Your task to perform on an android device: open device folders in google photos Image 0: 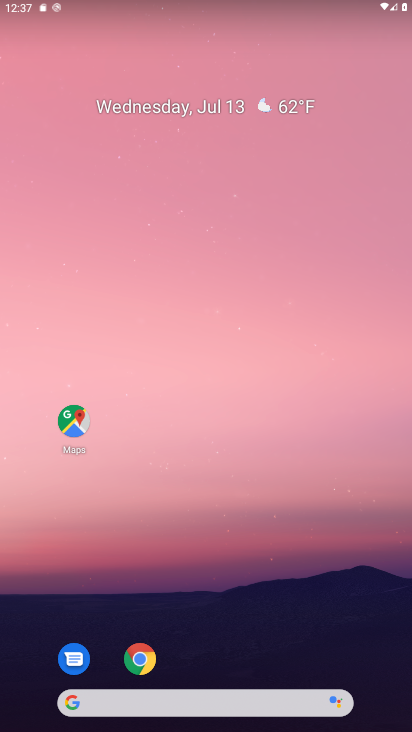
Step 0: drag from (277, 688) to (116, 99)
Your task to perform on an android device: open device folders in google photos Image 1: 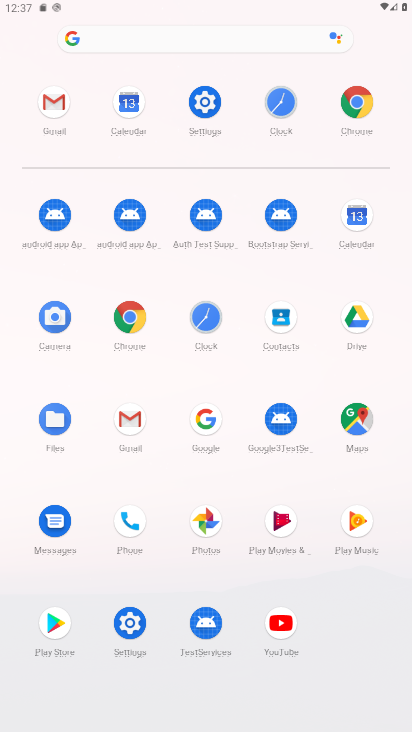
Step 1: click (207, 532)
Your task to perform on an android device: open device folders in google photos Image 2: 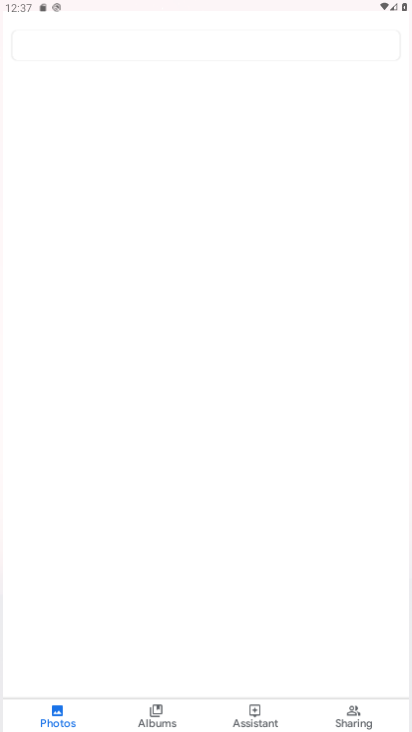
Step 2: click (209, 530)
Your task to perform on an android device: open device folders in google photos Image 3: 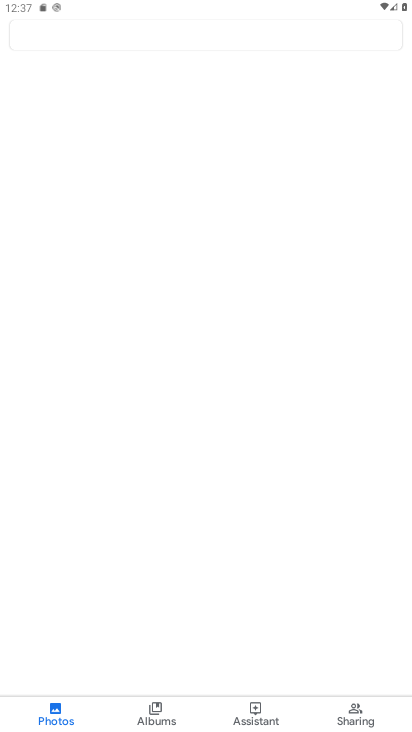
Step 3: click (213, 530)
Your task to perform on an android device: open device folders in google photos Image 4: 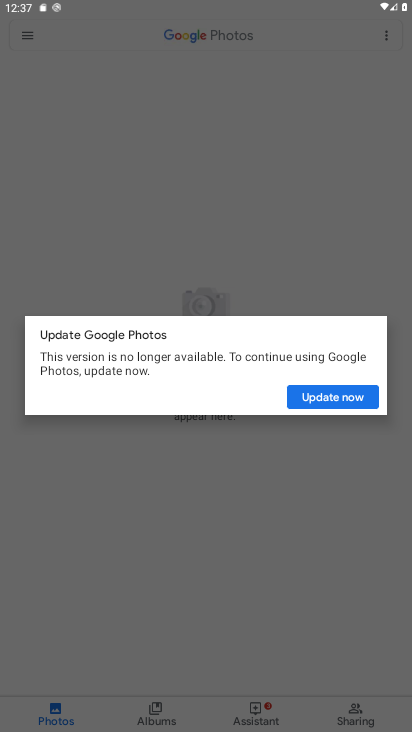
Step 4: click (169, 213)
Your task to perform on an android device: open device folders in google photos Image 5: 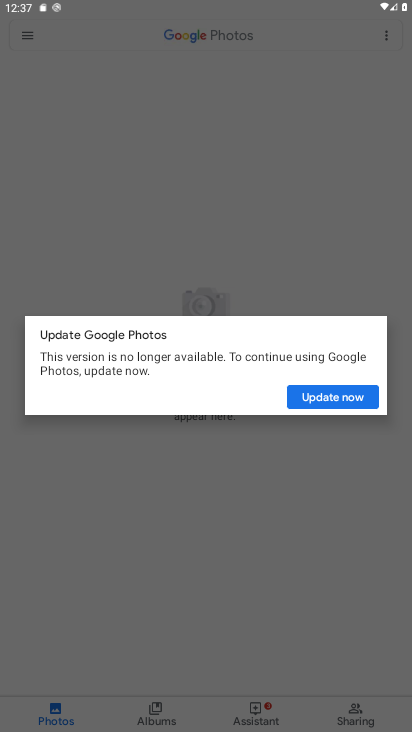
Step 5: click (174, 207)
Your task to perform on an android device: open device folders in google photos Image 6: 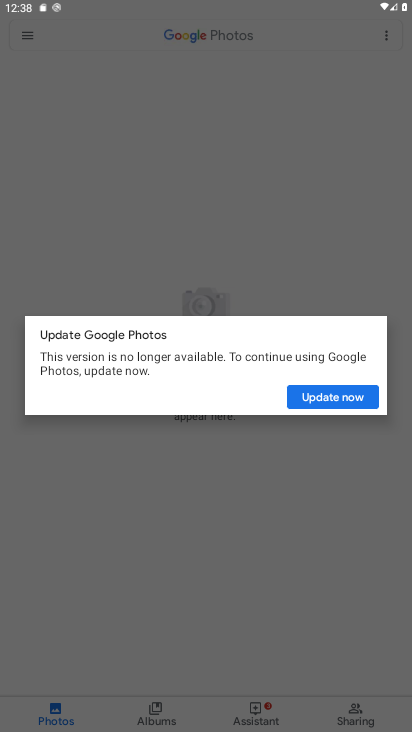
Step 6: click (182, 204)
Your task to perform on an android device: open device folders in google photos Image 7: 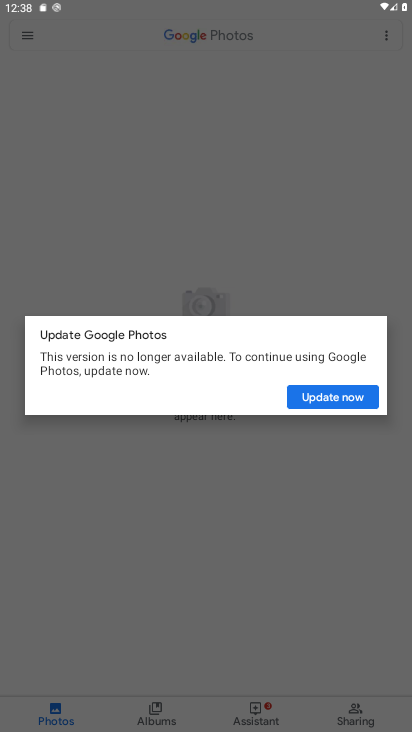
Step 7: click (236, 183)
Your task to perform on an android device: open device folders in google photos Image 8: 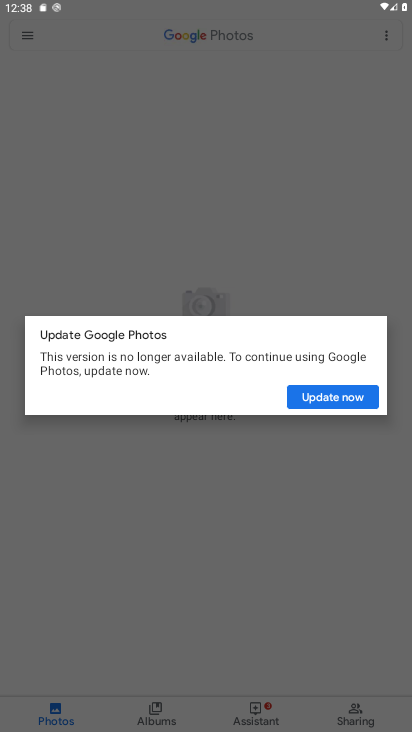
Step 8: click (244, 176)
Your task to perform on an android device: open device folders in google photos Image 9: 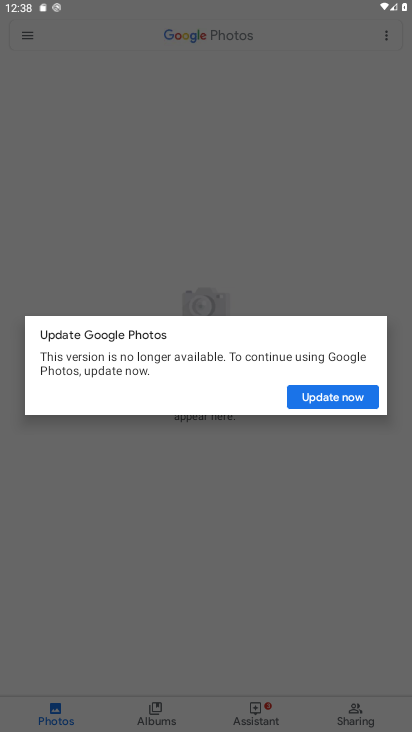
Step 9: click (290, 173)
Your task to perform on an android device: open device folders in google photos Image 10: 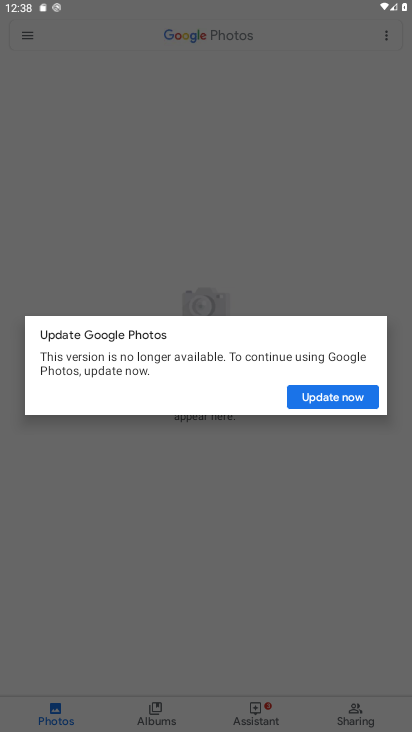
Step 10: click (291, 173)
Your task to perform on an android device: open device folders in google photos Image 11: 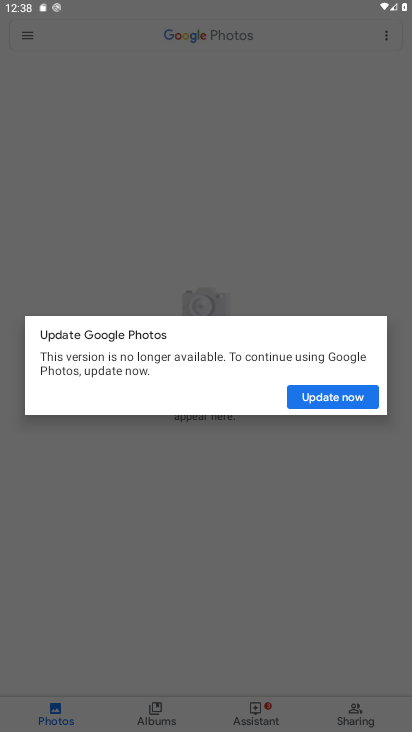
Step 11: click (291, 173)
Your task to perform on an android device: open device folders in google photos Image 12: 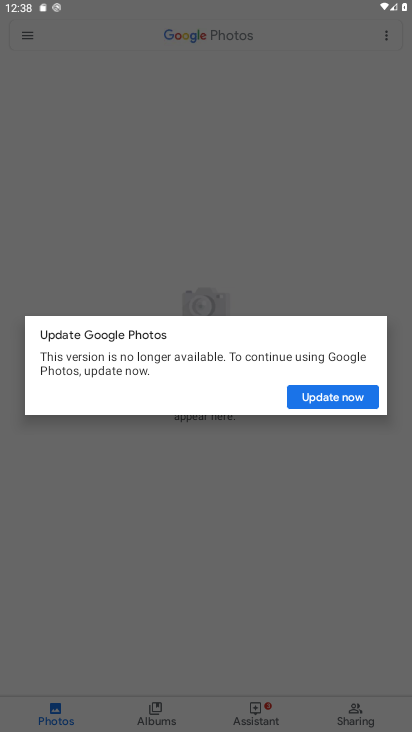
Step 12: press back button
Your task to perform on an android device: open device folders in google photos Image 13: 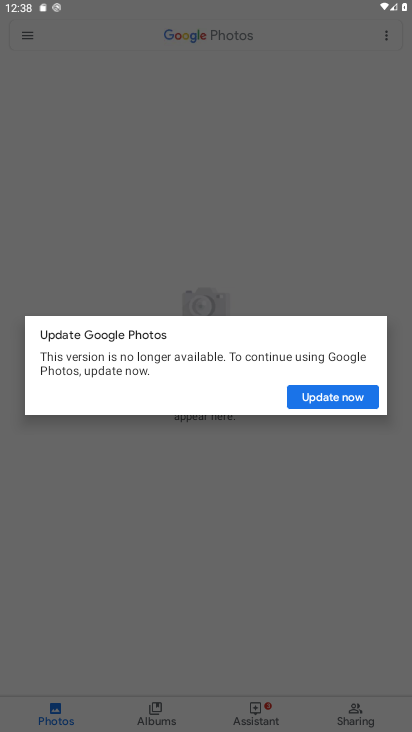
Step 13: click (246, 203)
Your task to perform on an android device: open device folders in google photos Image 14: 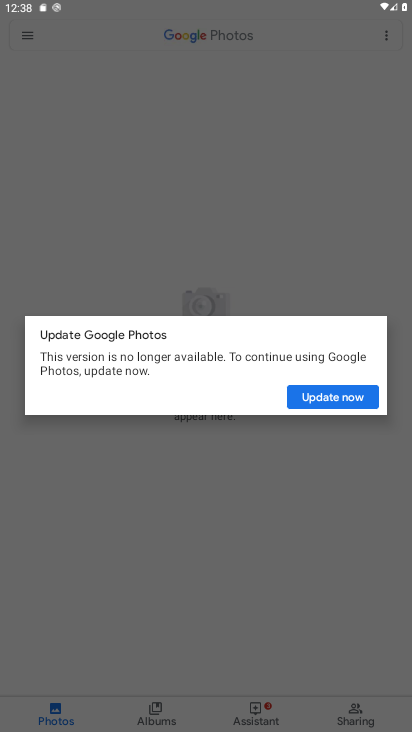
Step 14: click (246, 203)
Your task to perform on an android device: open device folders in google photos Image 15: 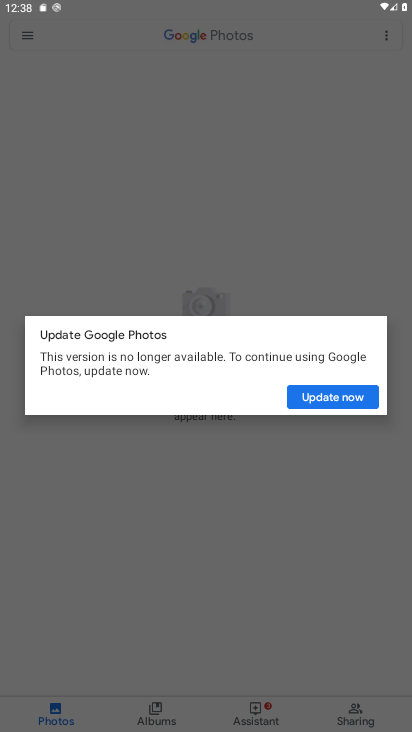
Step 15: click (258, 204)
Your task to perform on an android device: open device folders in google photos Image 16: 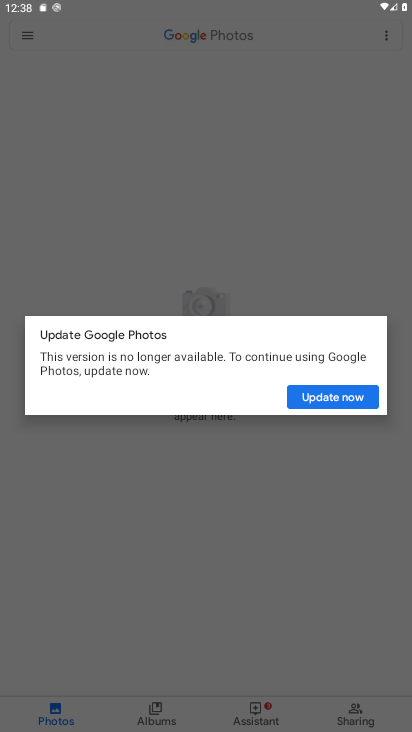
Step 16: press home button
Your task to perform on an android device: open device folders in google photos Image 17: 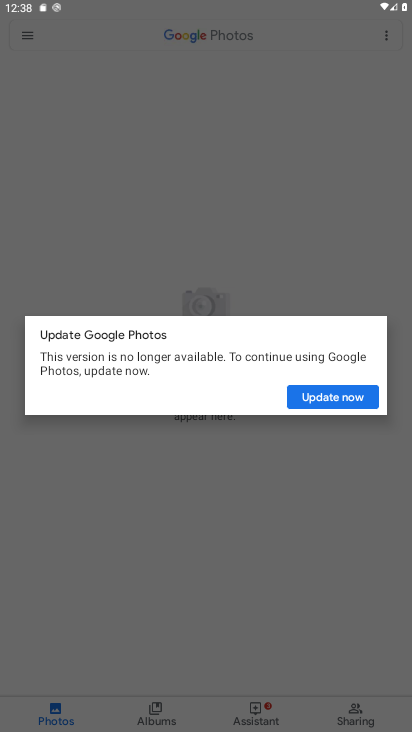
Step 17: press home button
Your task to perform on an android device: open device folders in google photos Image 18: 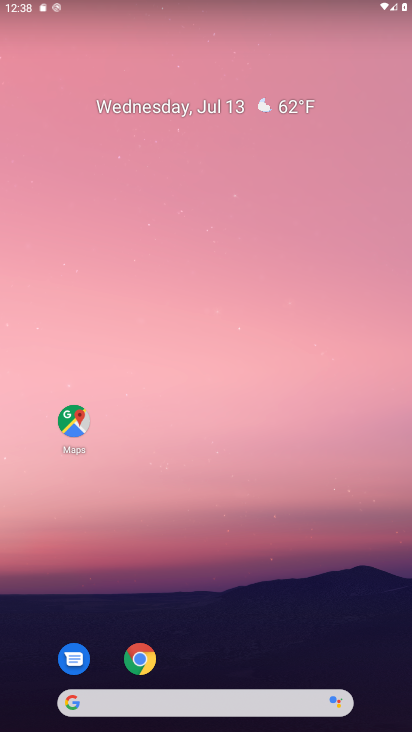
Step 18: drag from (272, 640) to (158, 5)
Your task to perform on an android device: open device folders in google photos Image 19: 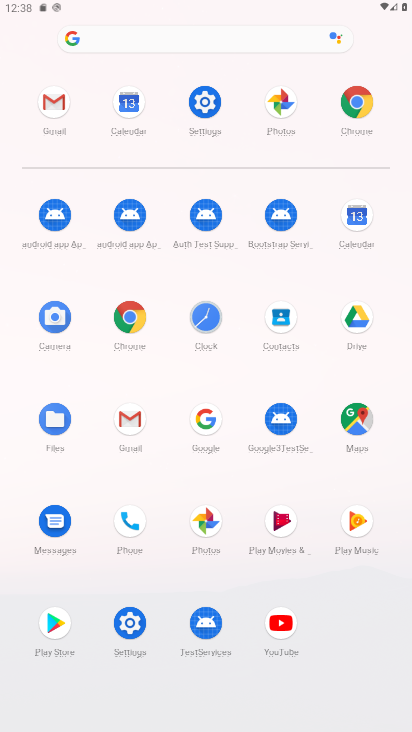
Step 19: click (201, 520)
Your task to perform on an android device: open device folders in google photos Image 20: 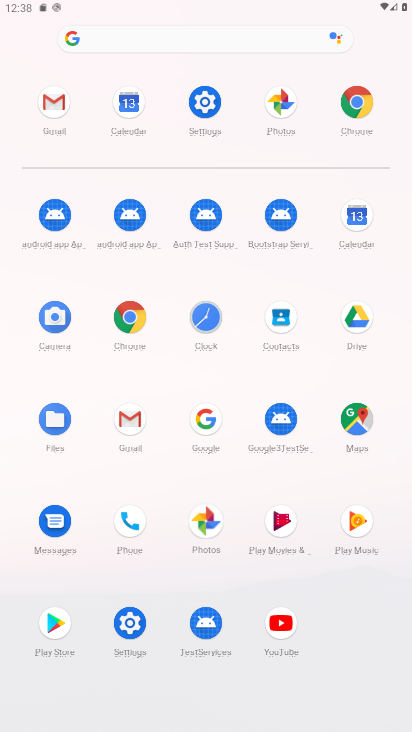
Step 20: click (202, 521)
Your task to perform on an android device: open device folders in google photos Image 21: 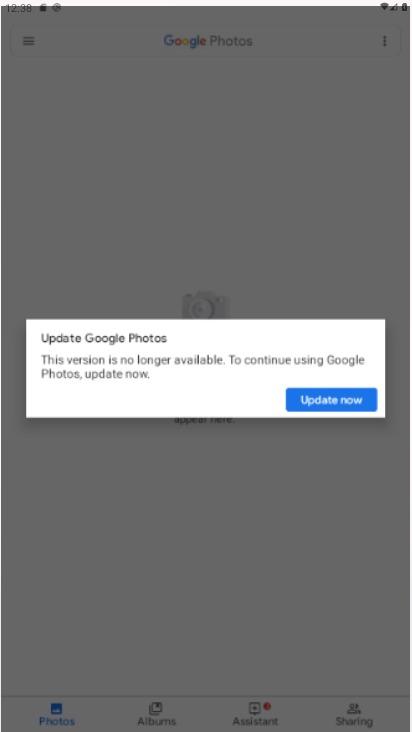
Step 21: click (203, 521)
Your task to perform on an android device: open device folders in google photos Image 22: 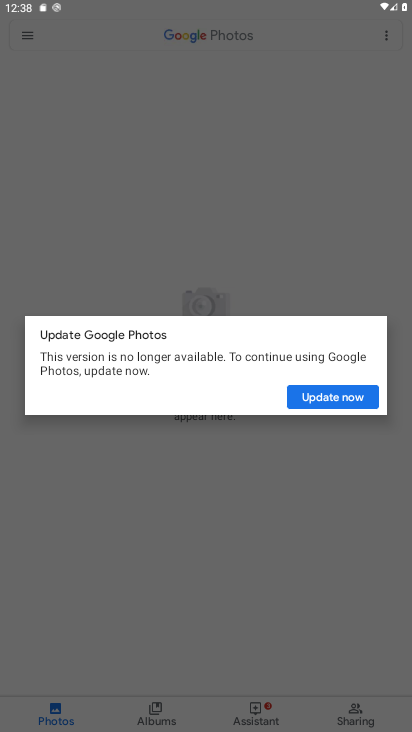
Step 22: click (327, 389)
Your task to perform on an android device: open device folders in google photos Image 23: 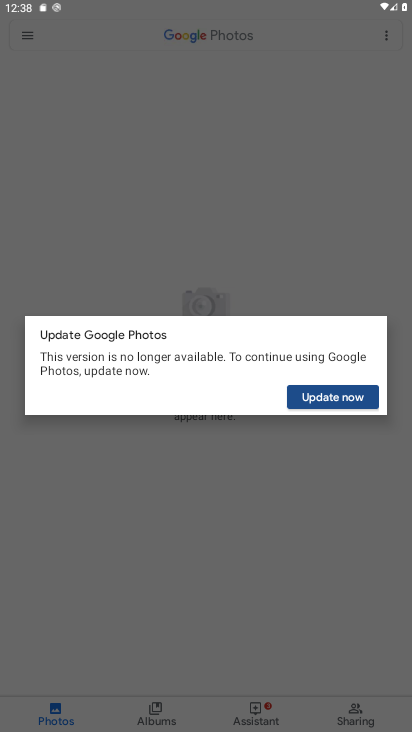
Step 23: click (329, 388)
Your task to perform on an android device: open device folders in google photos Image 24: 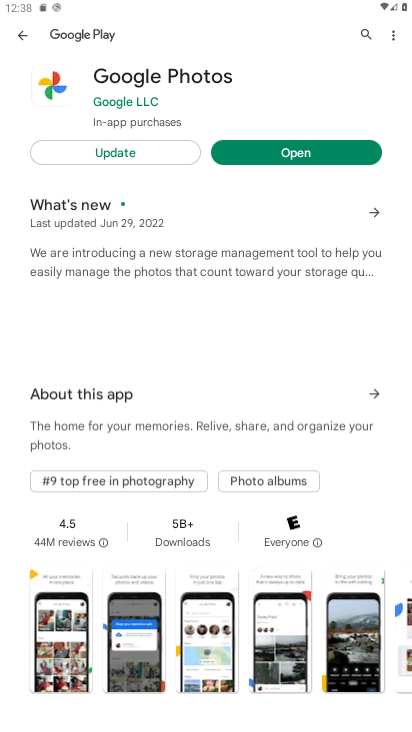
Step 24: click (141, 158)
Your task to perform on an android device: open device folders in google photos Image 25: 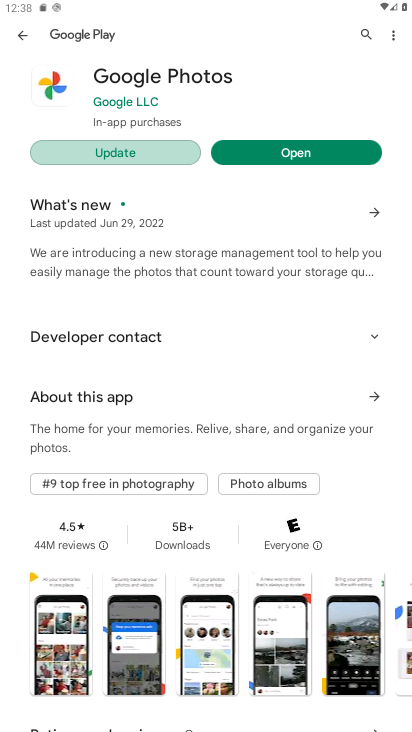
Step 25: click (137, 153)
Your task to perform on an android device: open device folders in google photos Image 26: 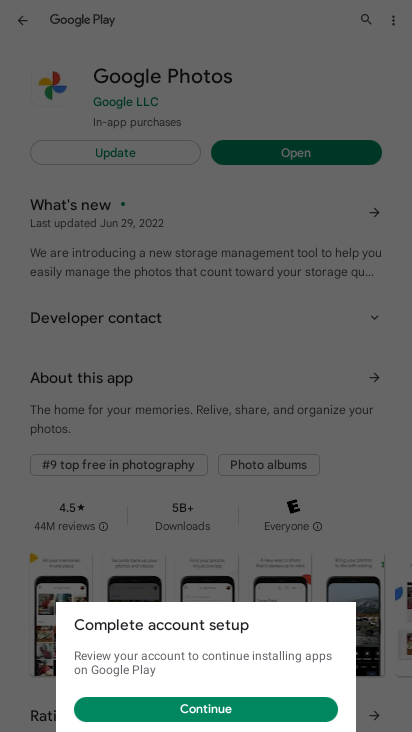
Step 26: click (338, 485)
Your task to perform on an android device: open device folders in google photos Image 27: 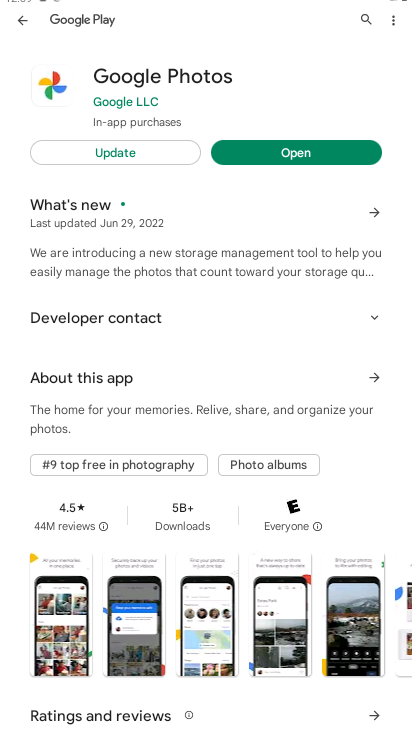
Step 27: click (339, 484)
Your task to perform on an android device: open device folders in google photos Image 28: 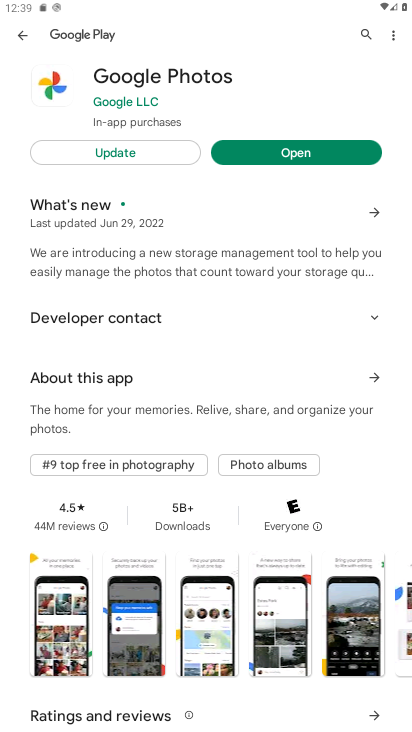
Step 28: click (340, 484)
Your task to perform on an android device: open device folders in google photos Image 29: 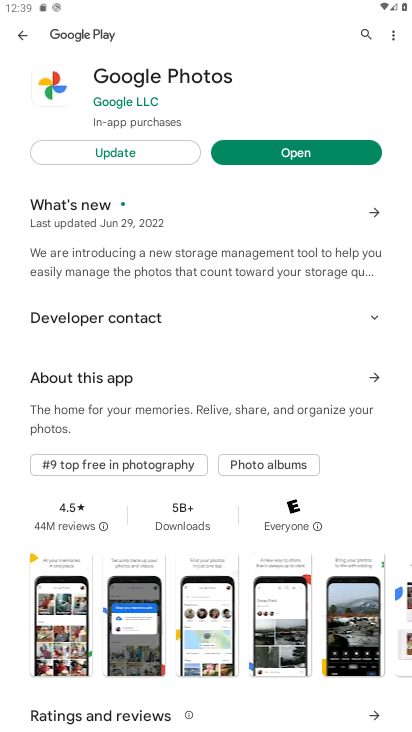
Step 29: click (308, 154)
Your task to perform on an android device: open device folders in google photos Image 30: 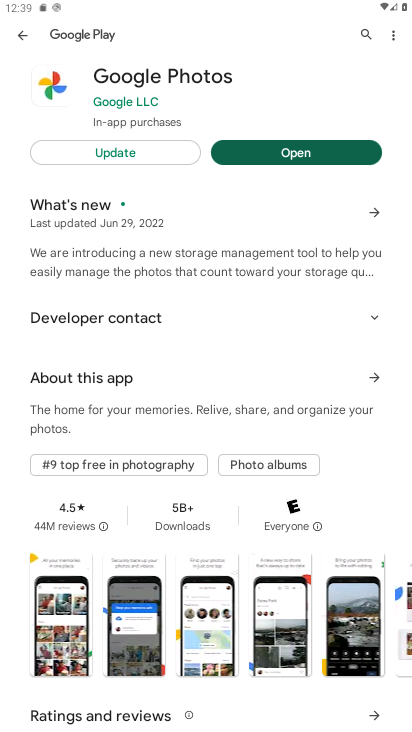
Step 30: click (308, 152)
Your task to perform on an android device: open device folders in google photos Image 31: 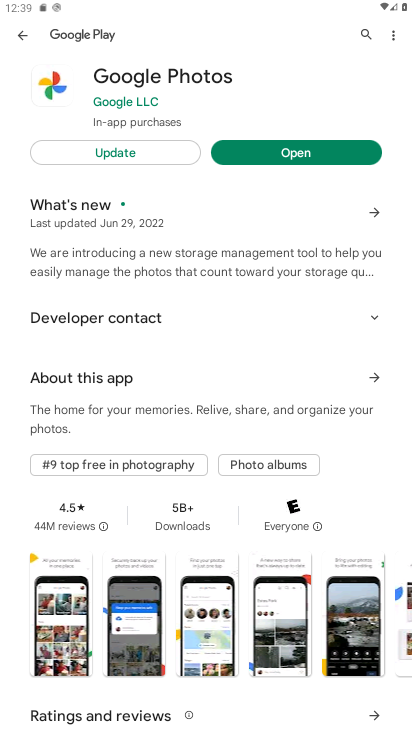
Step 31: click (308, 152)
Your task to perform on an android device: open device folders in google photos Image 32: 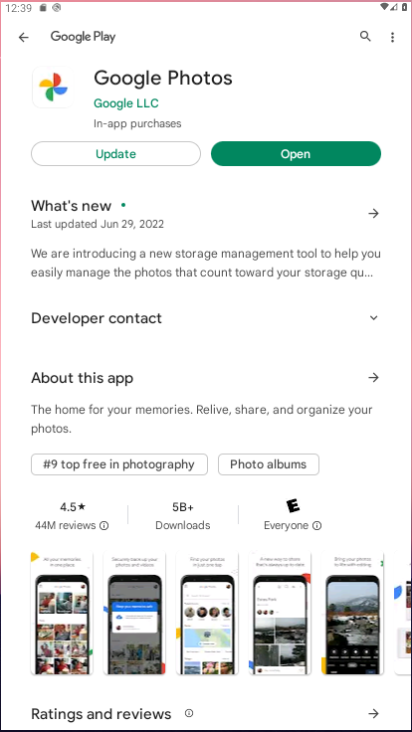
Step 32: click (308, 152)
Your task to perform on an android device: open device folders in google photos Image 33: 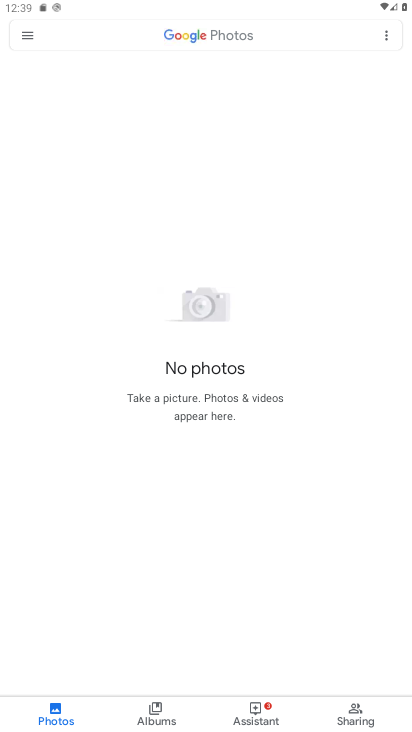
Step 33: drag from (26, 35) to (47, 126)
Your task to perform on an android device: open device folders in google photos Image 34: 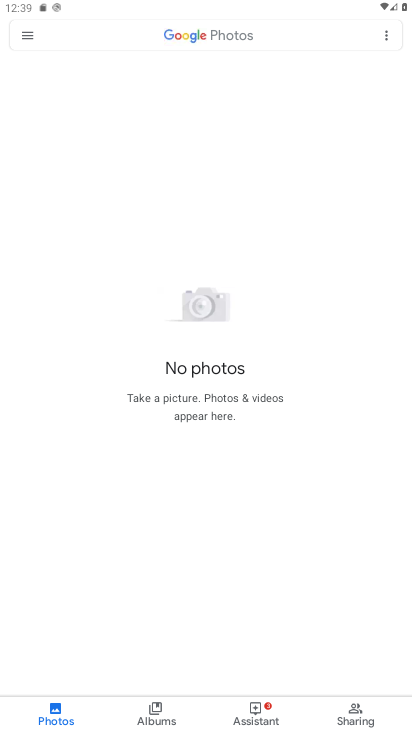
Step 34: drag from (26, 37) to (71, 192)
Your task to perform on an android device: open device folders in google photos Image 35: 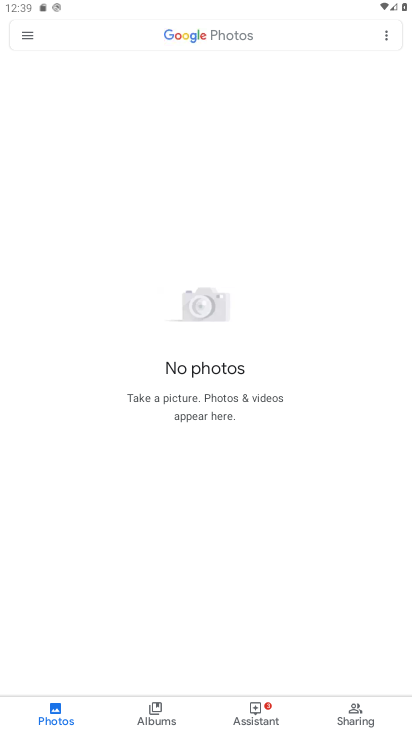
Step 35: drag from (27, 32) to (116, 271)
Your task to perform on an android device: open device folders in google photos Image 36: 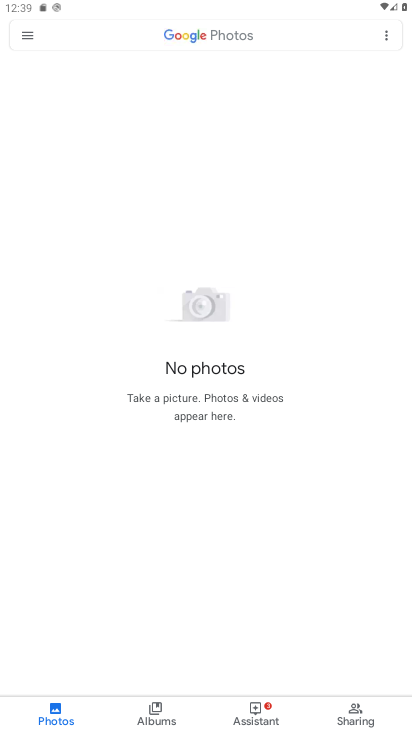
Step 36: click (27, 30)
Your task to perform on an android device: open device folders in google photos Image 37: 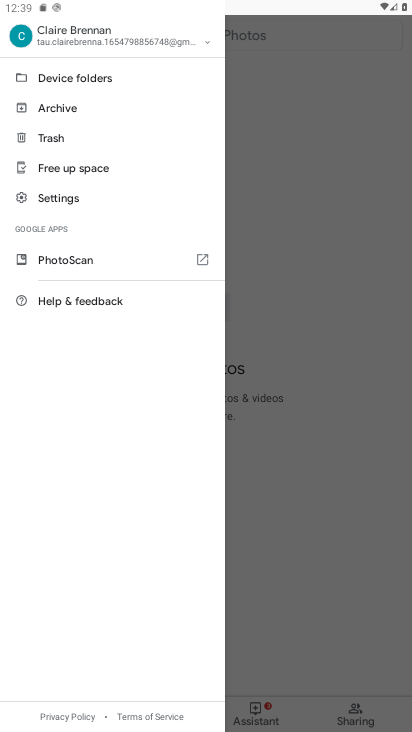
Step 37: click (67, 73)
Your task to perform on an android device: open device folders in google photos Image 38: 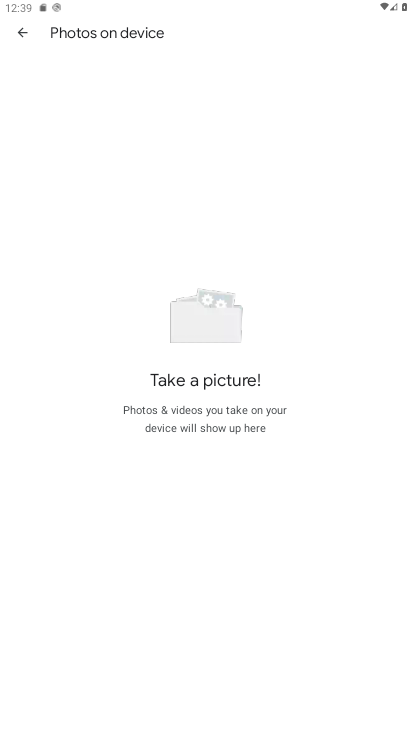
Step 38: task complete